Your task to perform on an android device: Open Yahoo.com Image 0: 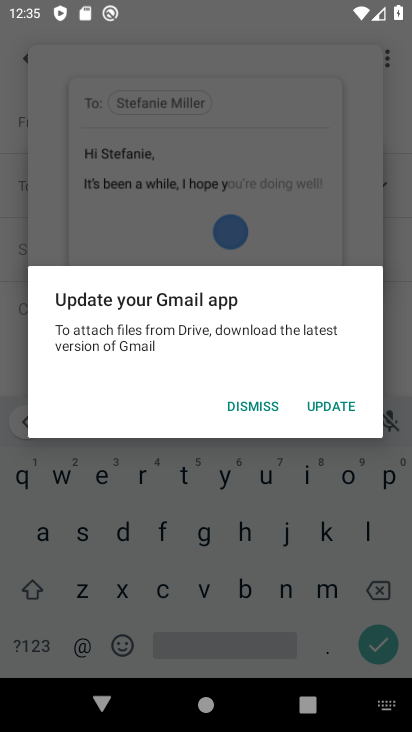
Step 0: press home button
Your task to perform on an android device: Open Yahoo.com Image 1: 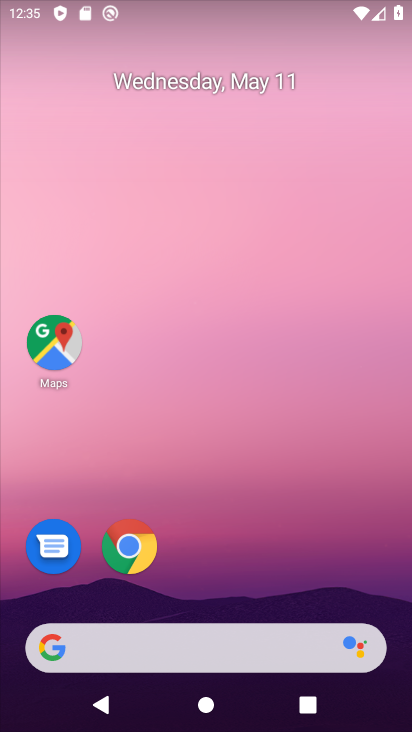
Step 1: drag from (239, 658) to (162, 250)
Your task to perform on an android device: Open Yahoo.com Image 2: 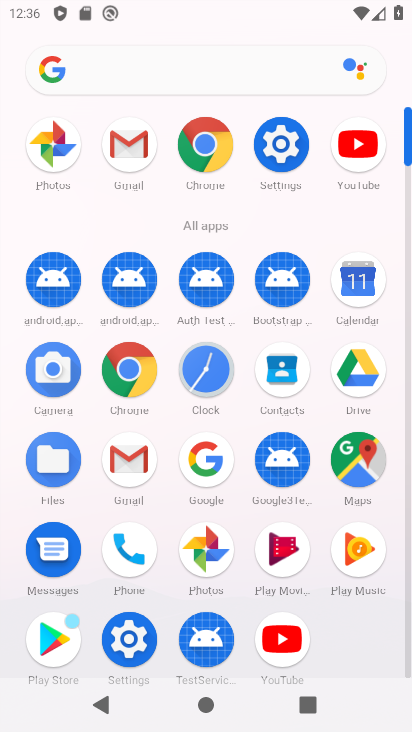
Step 2: click (210, 149)
Your task to perform on an android device: Open Yahoo.com Image 3: 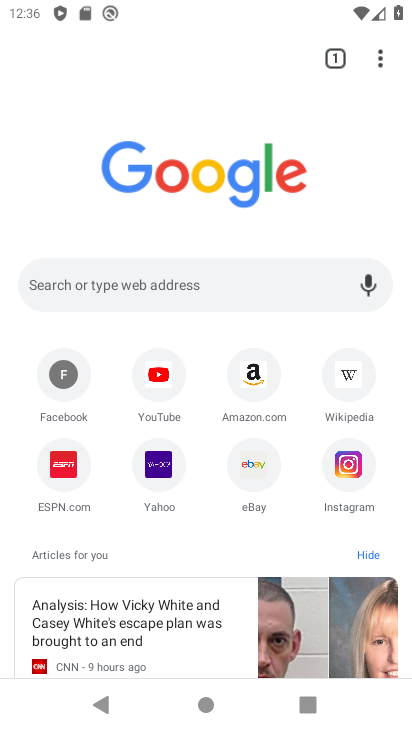
Step 3: click (151, 482)
Your task to perform on an android device: Open Yahoo.com Image 4: 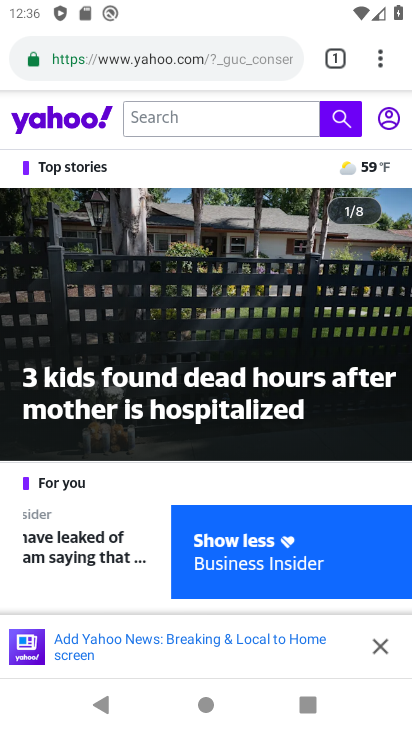
Step 4: task complete